Your task to perform on an android device: open wifi settings Image 0: 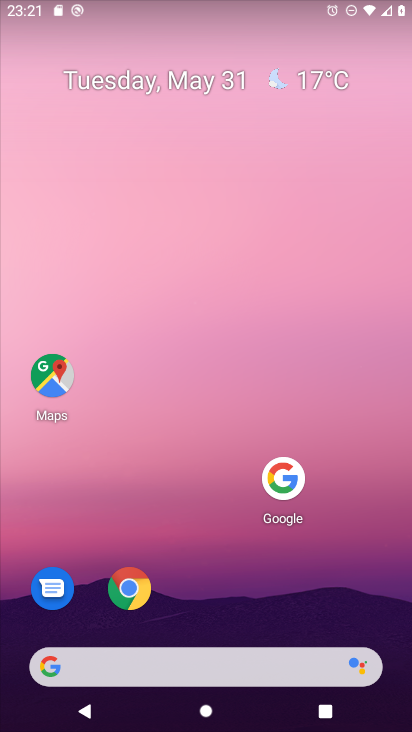
Step 0: drag from (199, 672) to (256, 161)
Your task to perform on an android device: open wifi settings Image 1: 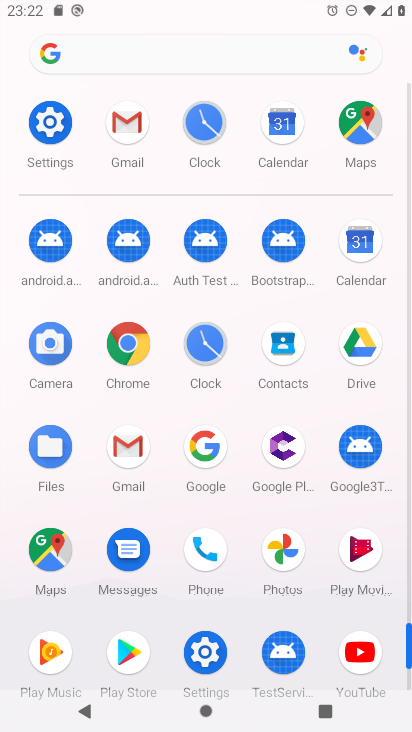
Step 1: click (46, 114)
Your task to perform on an android device: open wifi settings Image 2: 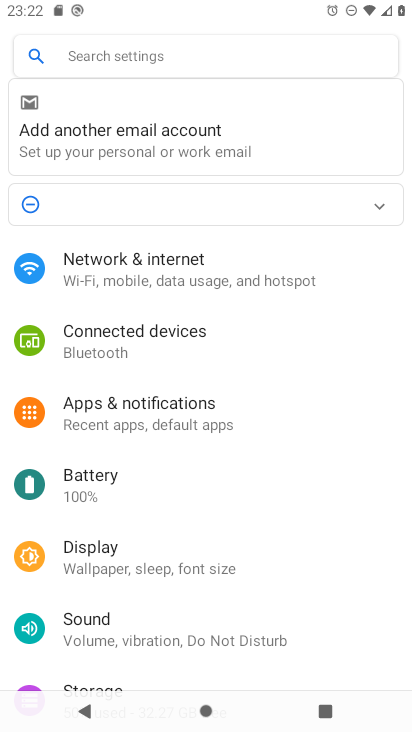
Step 2: click (162, 272)
Your task to perform on an android device: open wifi settings Image 3: 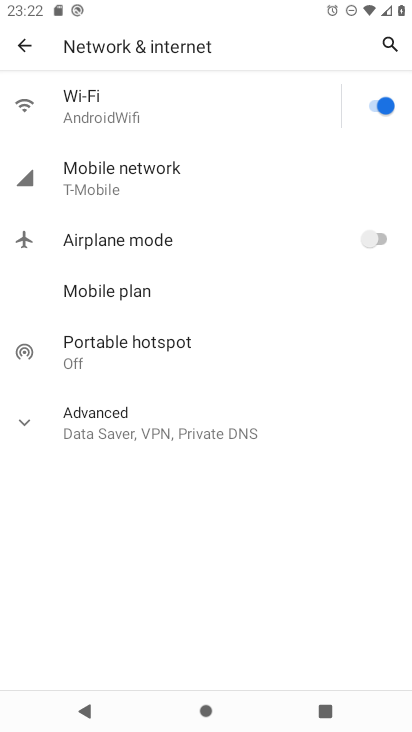
Step 3: click (81, 115)
Your task to perform on an android device: open wifi settings Image 4: 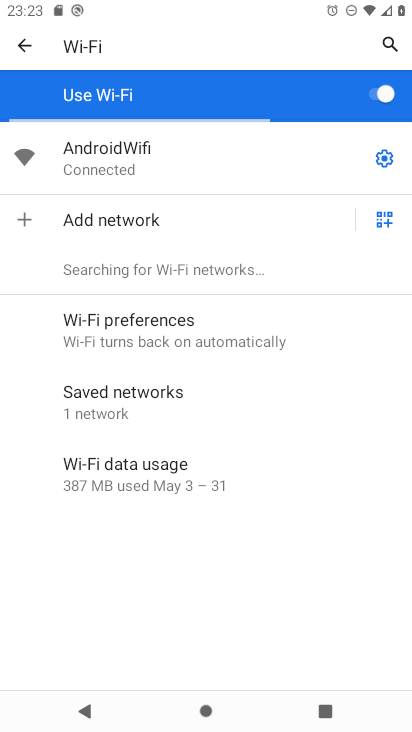
Step 4: task complete